Your task to perform on an android device: Go to Google maps Image 0: 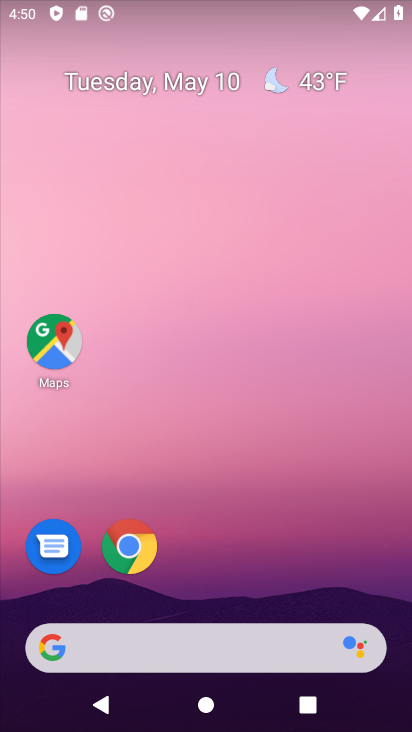
Step 0: click (53, 353)
Your task to perform on an android device: Go to Google maps Image 1: 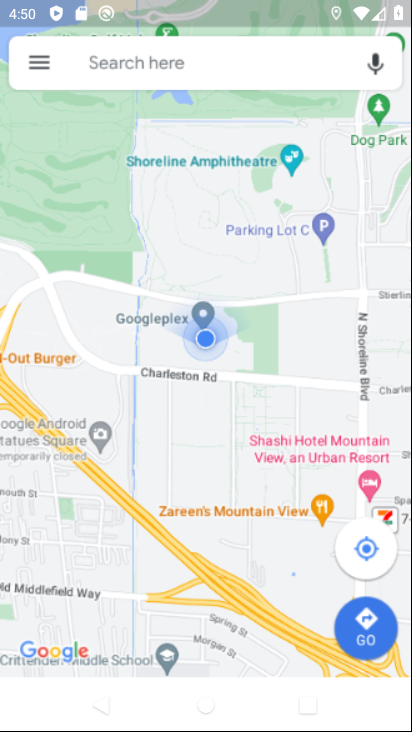
Step 1: task complete